Your task to perform on an android device: Open Google Chrome and click the shortcut for Amazon.com Image 0: 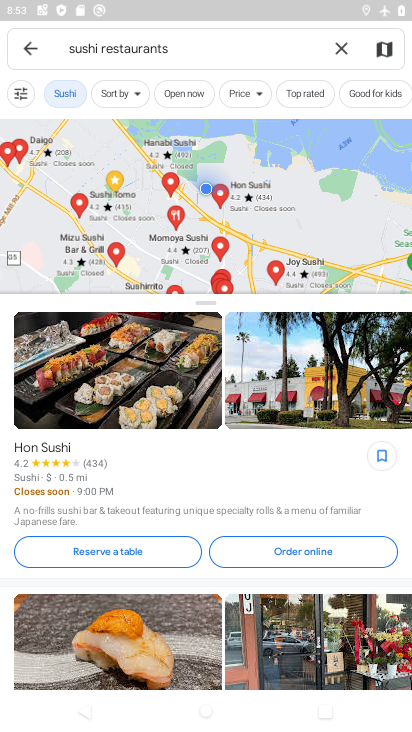
Step 0: press home button
Your task to perform on an android device: Open Google Chrome and click the shortcut for Amazon.com Image 1: 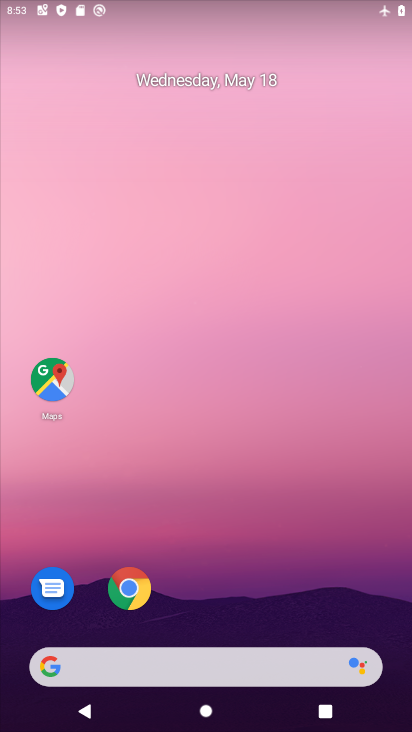
Step 1: click (134, 587)
Your task to perform on an android device: Open Google Chrome and click the shortcut for Amazon.com Image 2: 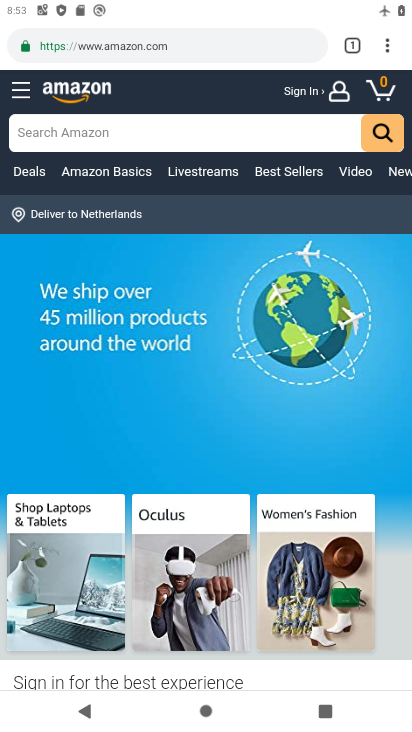
Step 2: click (384, 45)
Your task to perform on an android device: Open Google Chrome and click the shortcut for Amazon.com Image 3: 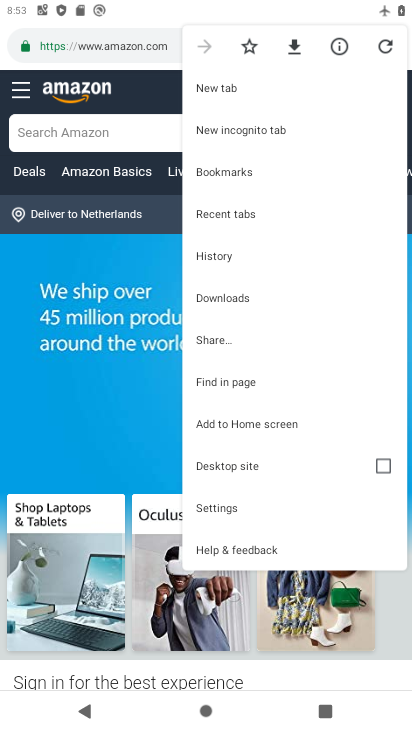
Step 3: click (212, 96)
Your task to perform on an android device: Open Google Chrome and click the shortcut for Amazon.com Image 4: 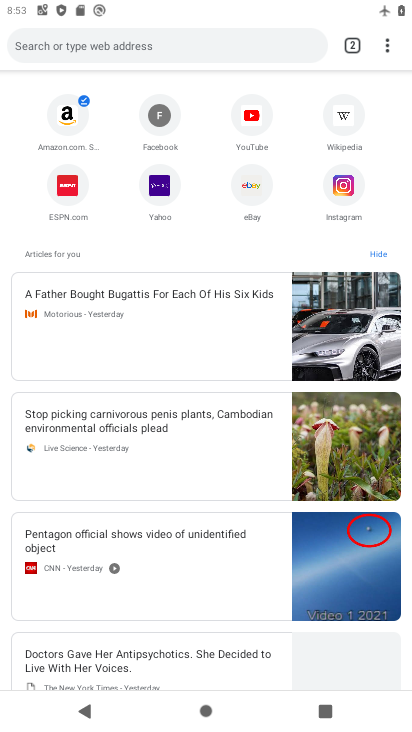
Step 4: click (70, 122)
Your task to perform on an android device: Open Google Chrome and click the shortcut for Amazon.com Image 5: 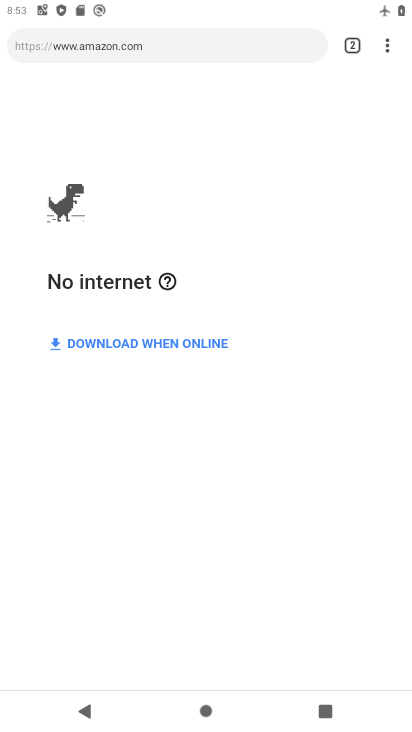
Step 5: task complete